Your task to perform on an android device: turn off wifi Image 0: 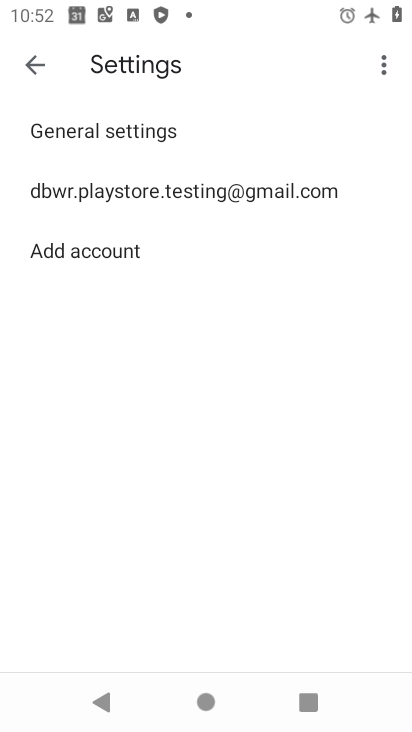
Step 0: press home button
Your task to perform on an android device: turn off wifi Image 1: 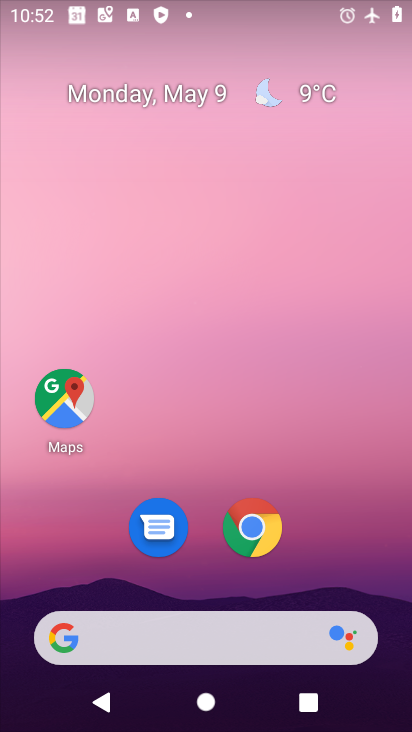
Step 1: drag from (394, 616) to (311, 161)
Your task to perform on an android device: turn off wifi Image 2: 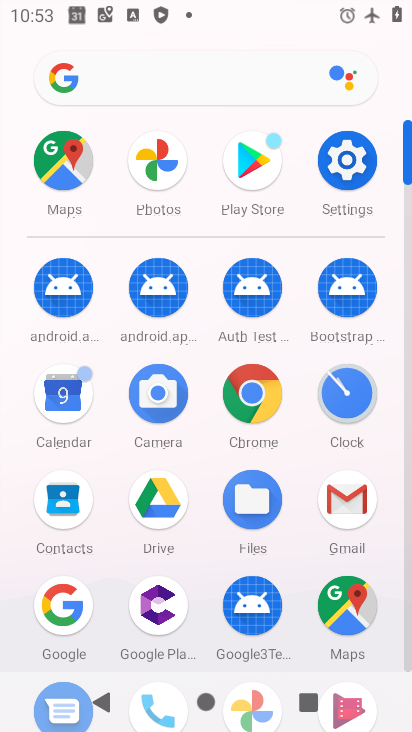
Step 2: click (408, 666)
Your task to perform on an android device: turn off wifi Image 3: 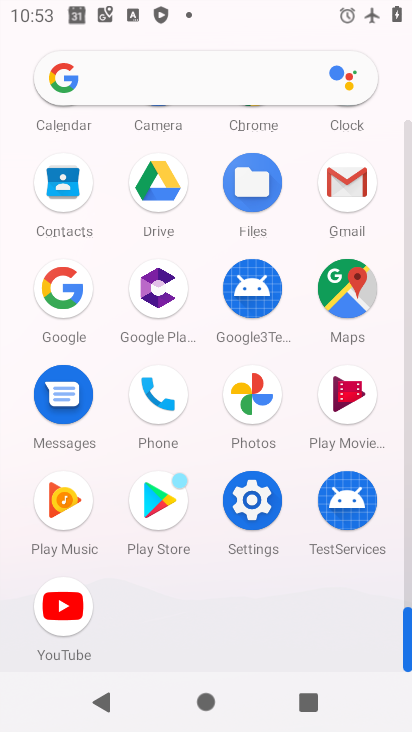
Step 3: click (253, 499)
Your task to perform on an android device: turn off wifi Image 4: 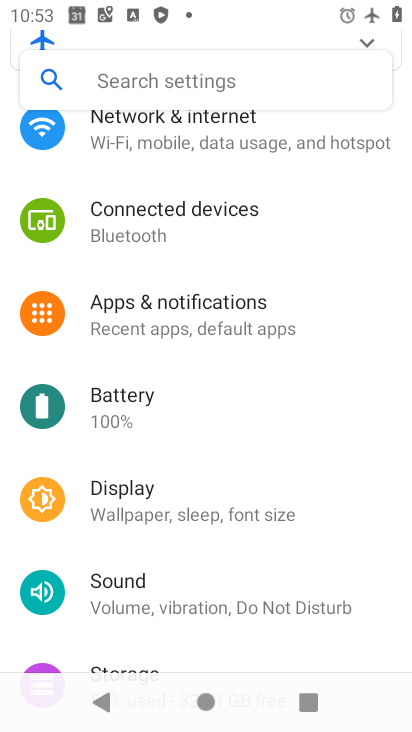
Step 4: click (190, 138)
Your task to perform on an android device: turn off wifi Image 5: 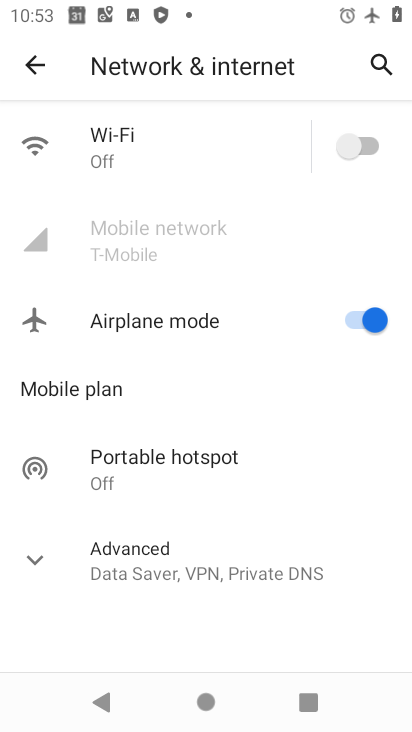
Step 5: task complete